Your task to perform on an android device: toggle notifications settings in the gmail app Image 0: 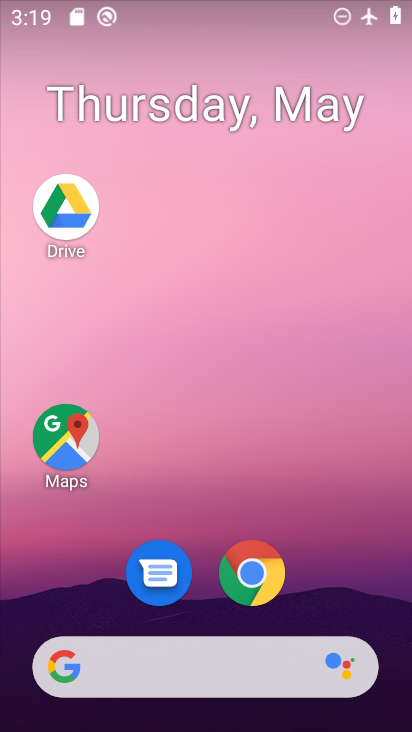
Step 0: drag from (288, 490) to (209, 21)
Your task to perform on an android device: toggle notifications settings in the gmail app Image 1: 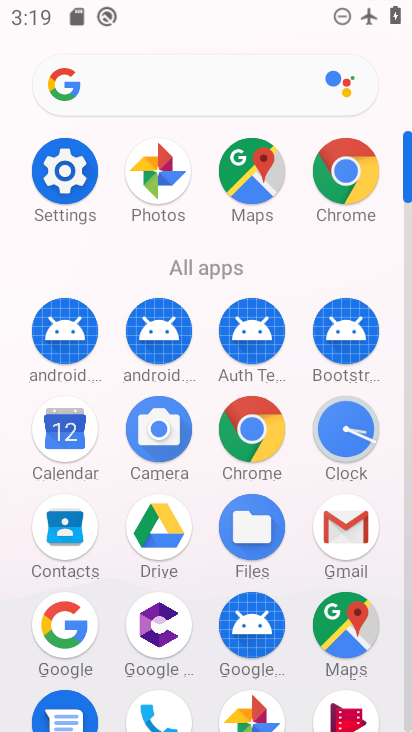
Step 1: click (336, 520)
Your task to perform on an android device: toggle notifications settings in the gmail app Image 2: 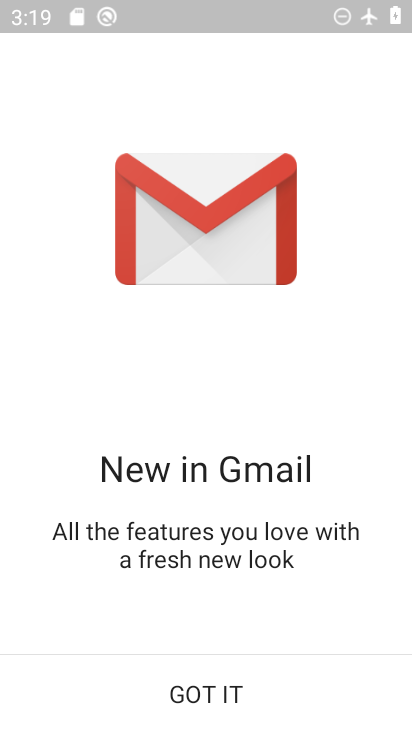
Step 2: click (184, 702)
Your task to perform on an android device: toggle notifications settings in the gmail app Image 3: 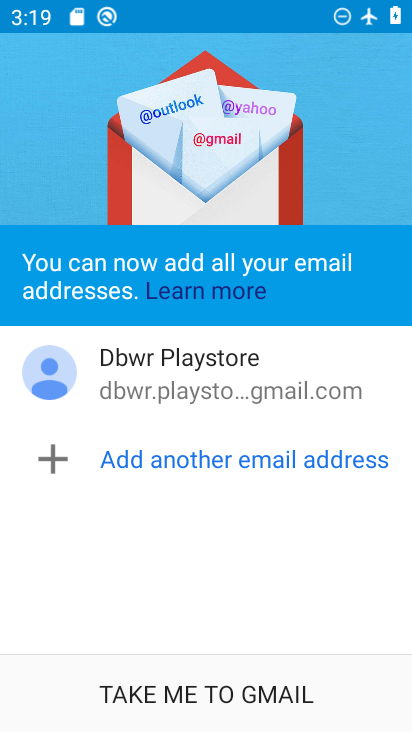
Step 3: click (184, 702)
Your task to perform on an android device: toggle notifications settings in the gmail app Image 4: 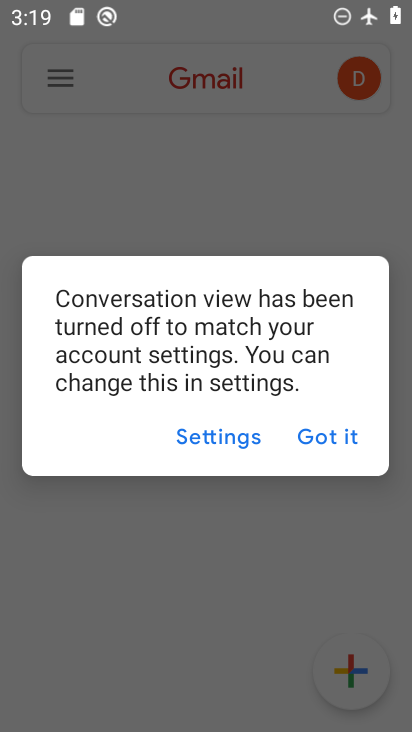
Step 4: click (318, 435)
Your task to perform on an android device: toggle notifications settings in the gmail app Image 5: 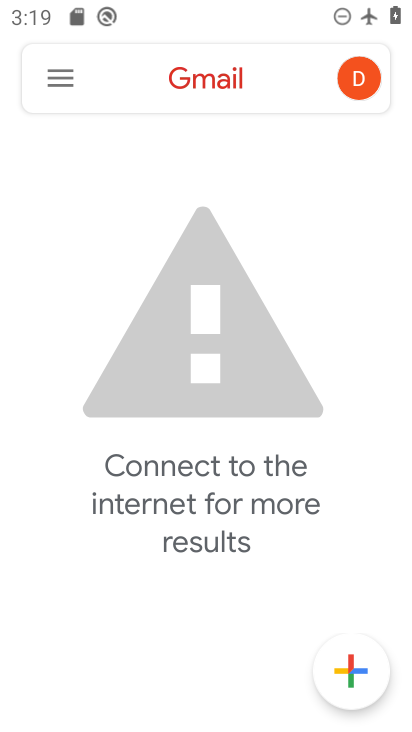
Step 5: click (62, 64)
Your task to perform on an android device: toggle notifications settings in the gmail app Image 6: 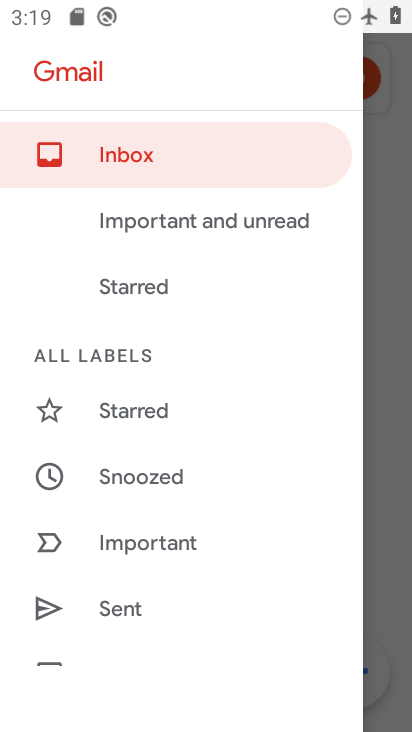
Step 6: drag from (170, 542) to (127, 211)
Your task to perform on an android device: toggle notifications settings in the gmail app Image 7: 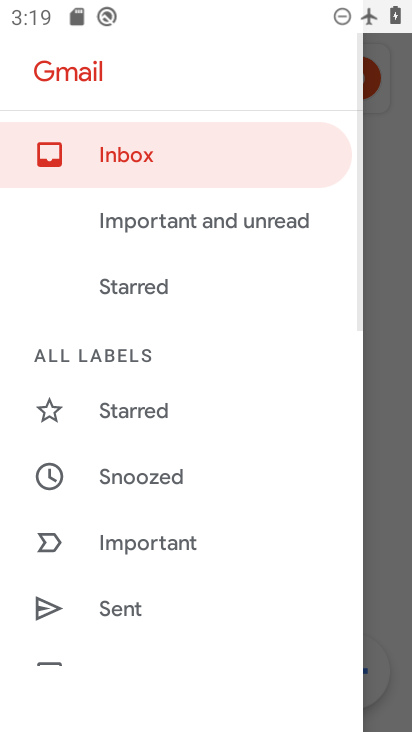
Step 7: drag from (169, 582) to (169, 237)
Your task to perform on an android device: toggle notifications settings in the gmail app Image 8: 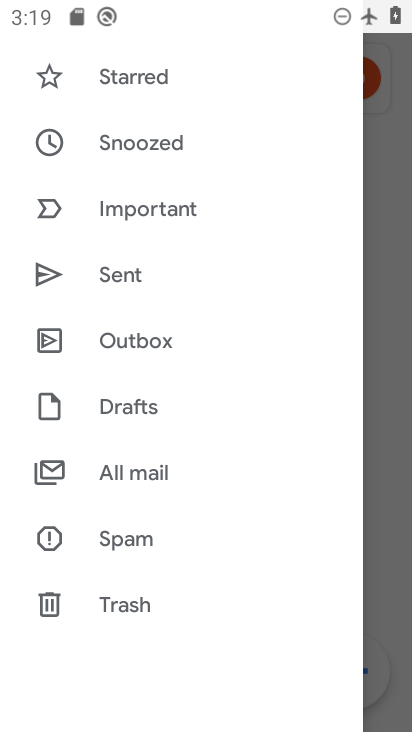
Step 8: drag from (163, 562) to (157, 206)
Your task to perform on an android device: toggle notifications settings in the gmail app Image 9: 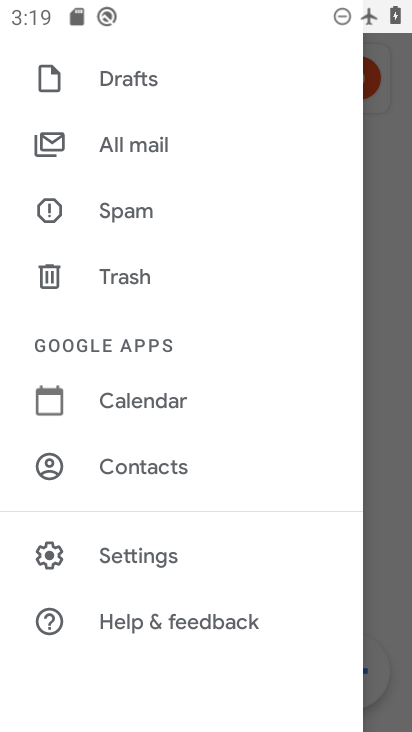
Step 9: click (115, 555)
Your task to perform on an android device: toggle notifications settings in the gmail app Image 10: 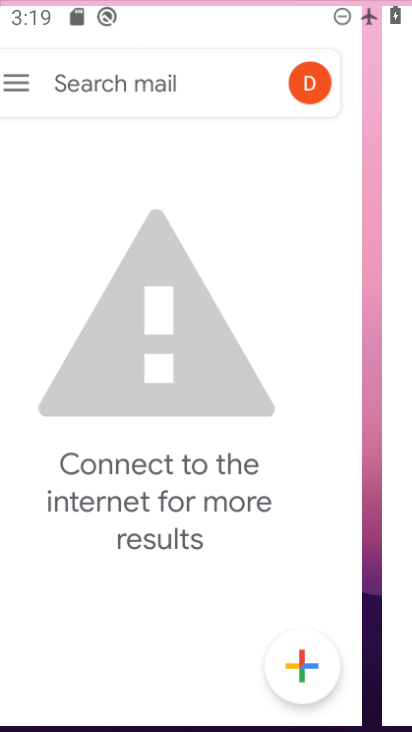
Step 10: click (115, 555)
Your task to perform on an android device: toggle notifications settings in the gmail app Image 11: 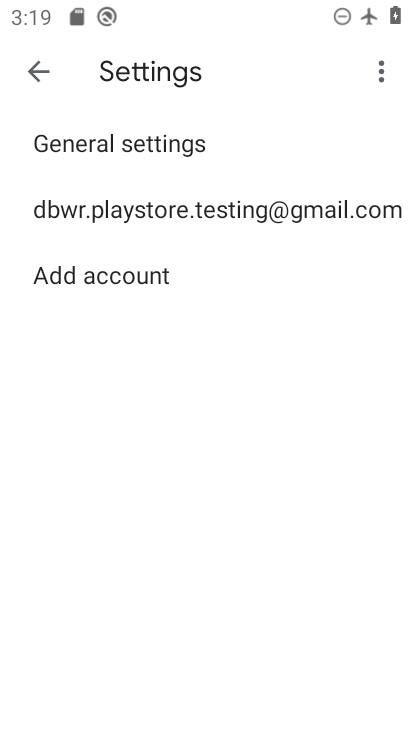
Step 11: click (82, 142)
Your task to perform on an android device: toggle notifications settings in the gmail app Image 12: 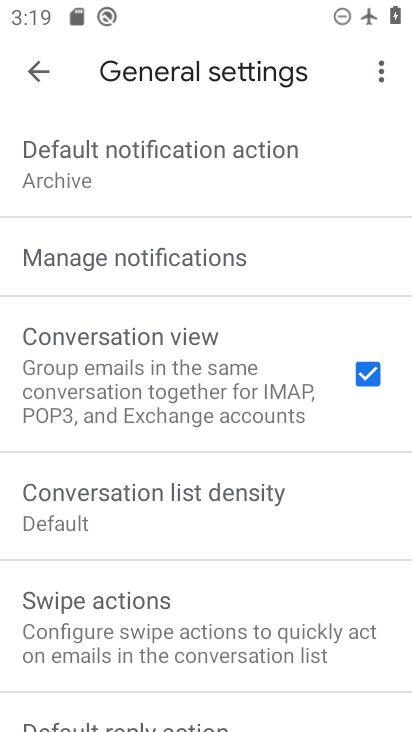
Step 12: click (146, 261)
Your task to perform on an android device: toggle notifications settings in the gmail app Image 13: 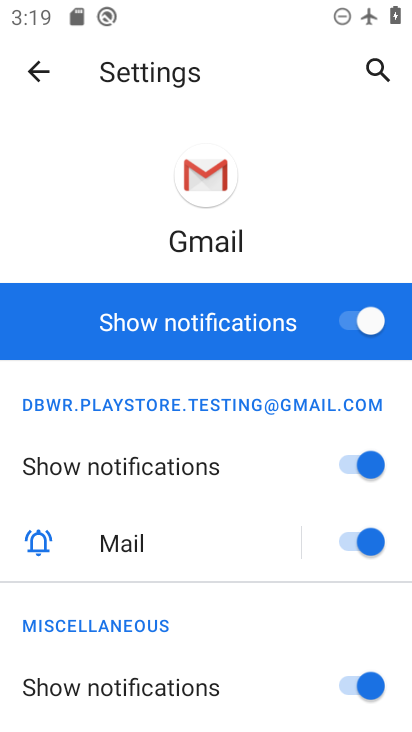
Step 13: click (371, 310)
Your task to perform on an android device: toggle notifications settings in the gmail app Image 14: 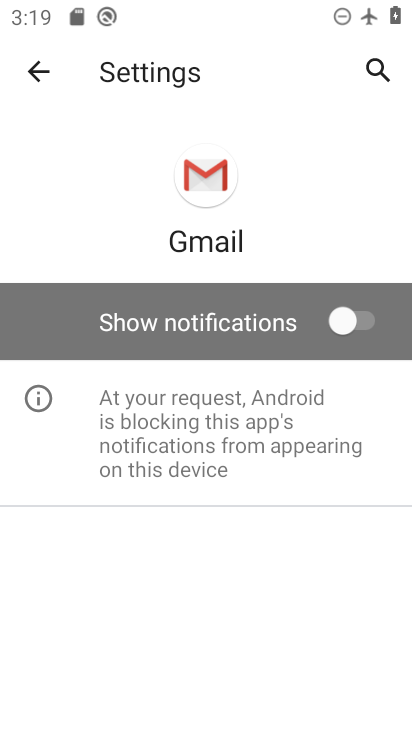
Step 14: task complete